Your task to perform on an android device: show emergency info Image 0: 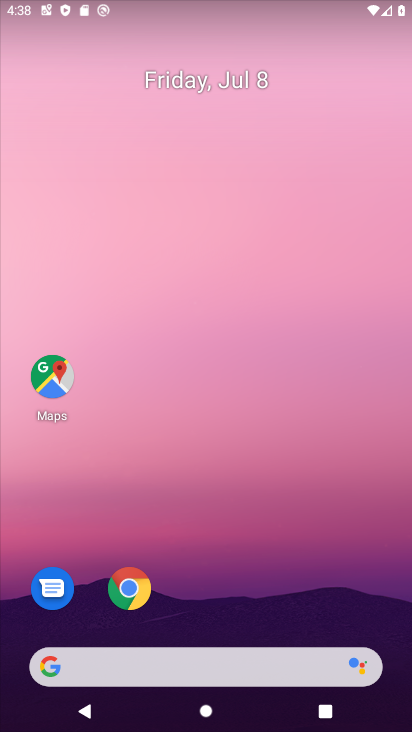
Step 0: drag from (174, 429) to (181, 9)
Your task to perform on an android device: show emergency info Image 1: 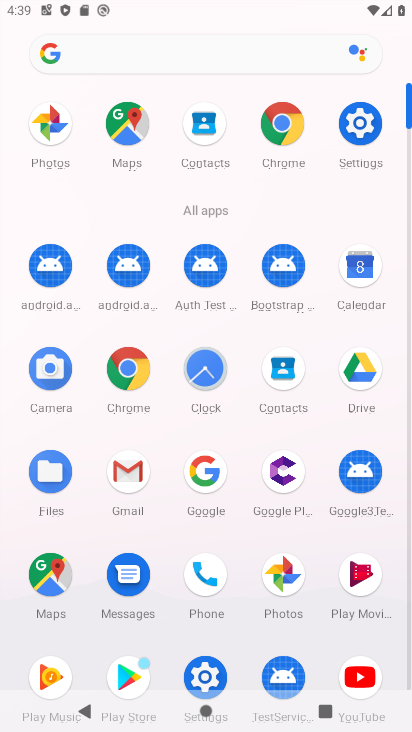
Step 1: click (208, 667)
Your task to perform on an android device: show emergency info Image 2: 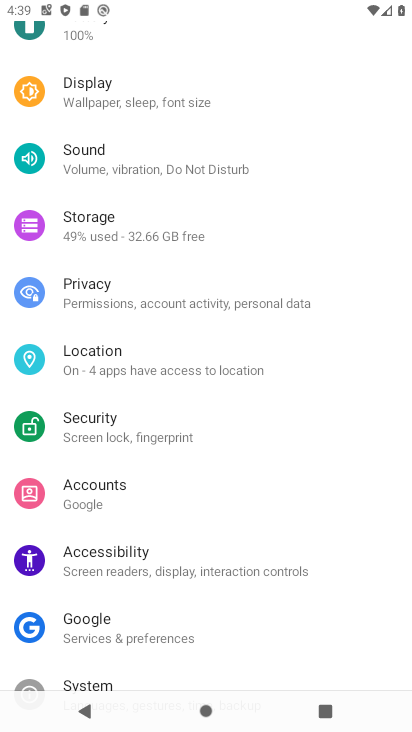
Step 2: drag from (135, 626) to (195, 60)
Your task to perform on an android device: show emergency info Image 3: 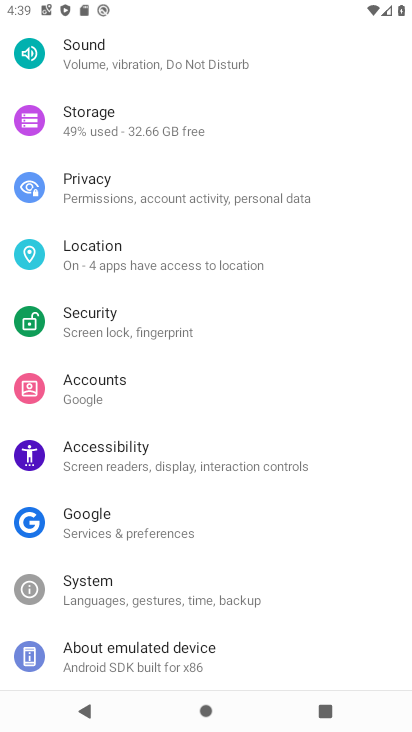
Step 3: click (145, 664)
Your task to perform on an android device: show emergency info Image 4: 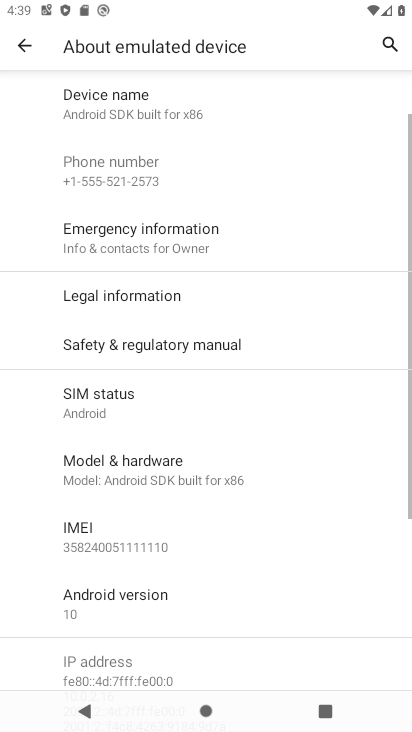
Step 4: drag from (129, 590) to (162, 310)
Your task to perform on an android device: show emergency info Image 5: 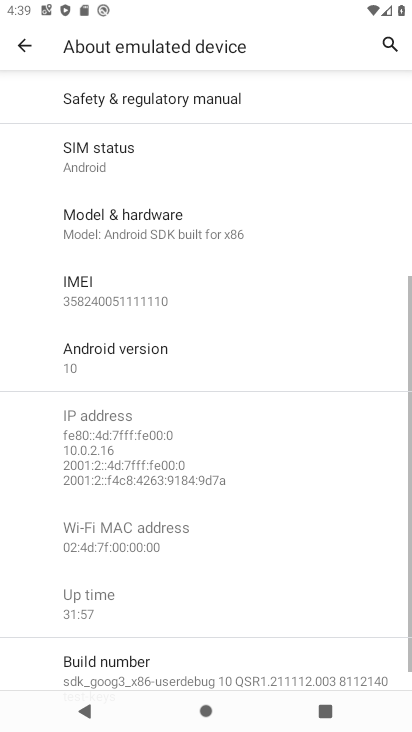
Step 5: drag from (131, 217) to (128, 634)
Your task to perform on an android device: show emergency info Image 6: 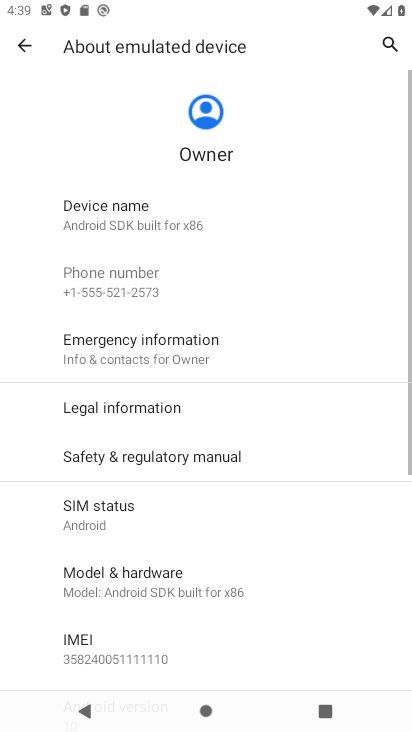
Step 6: click (142, 357)
Your task to perform on an android device: show emergency info Image 7: 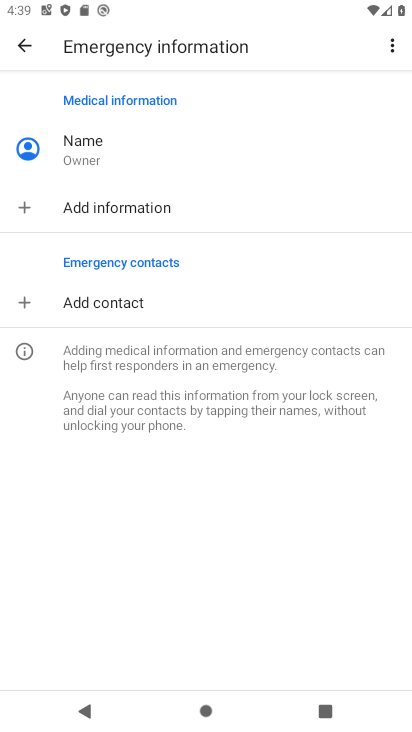
Step 7: task complete